Your task to perform on an android device: Open Google Maps and go to "Timeline" Image 0: 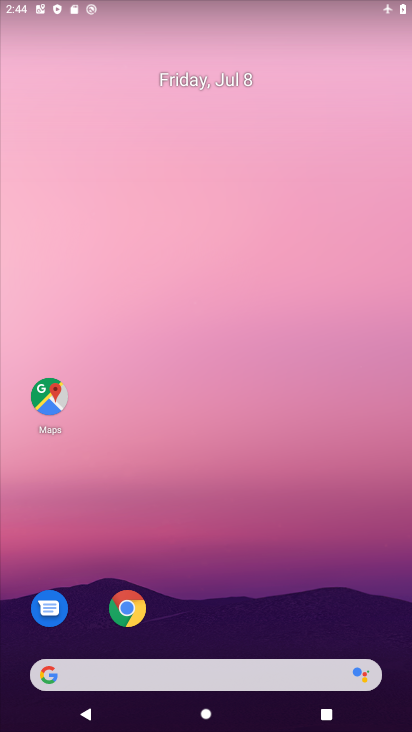
Step 0: click (232, 10)
Your task to perform on an android device: Open Google Maps and go to "Timeline" Image 1: 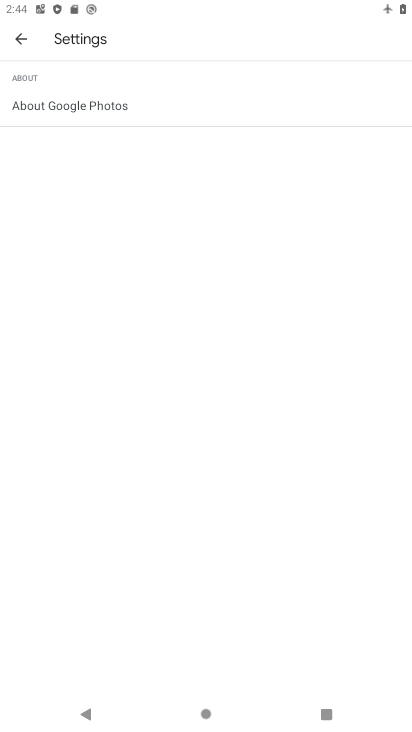
Step 1: press home button
Your task to perform on an android device: Open Google Maps and go to "Timeline" Image 2: 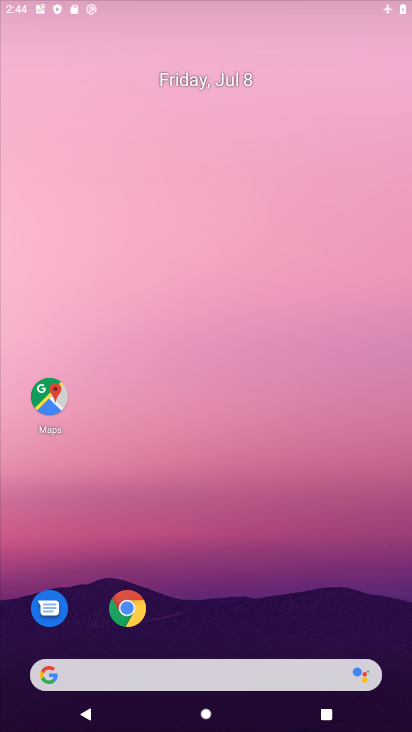
Step 2: drag from (270, 609) to (310, 5)
Your task to perform on an android device: Open Google Maps and go to "Timeline" Image 3: 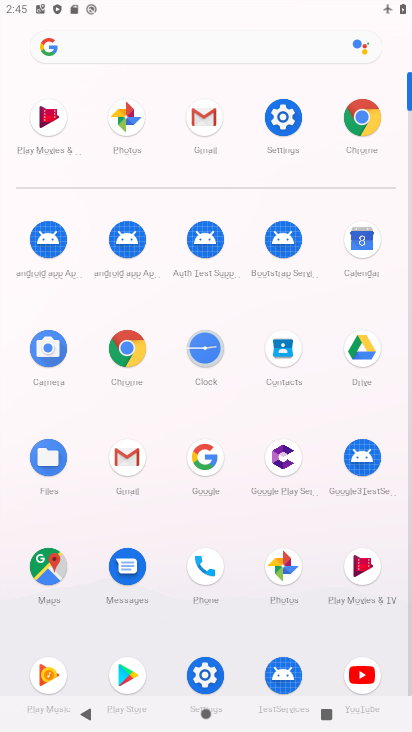
Step 3: click (52, 559)
Your task to perform on an android device: Open Google Maps and go to "Timeline" Image 4: 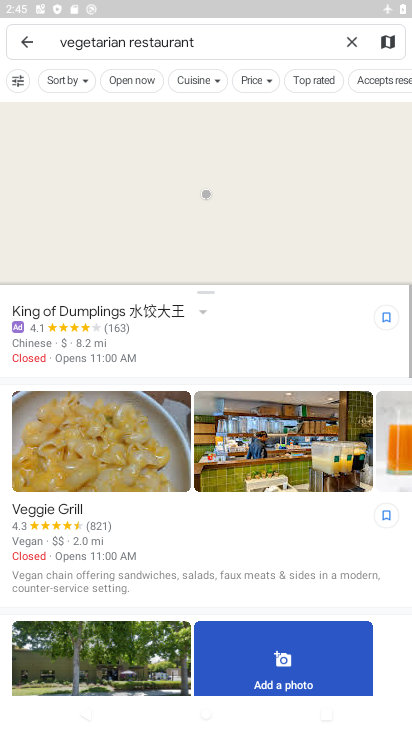
Step 4: press back button
Your task to perform on an android device: Open Google Maps and go to "Timeline" Image 5: 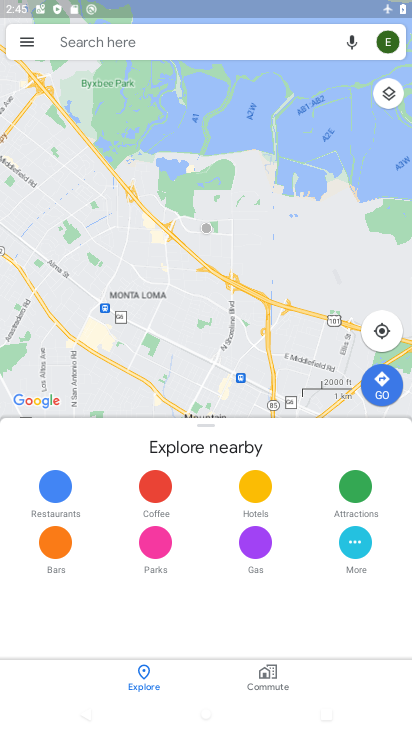
Step 5: click (21, 46)
Your task to perform on an android device: Open Google Maps and go to "Timeline" Image 6: 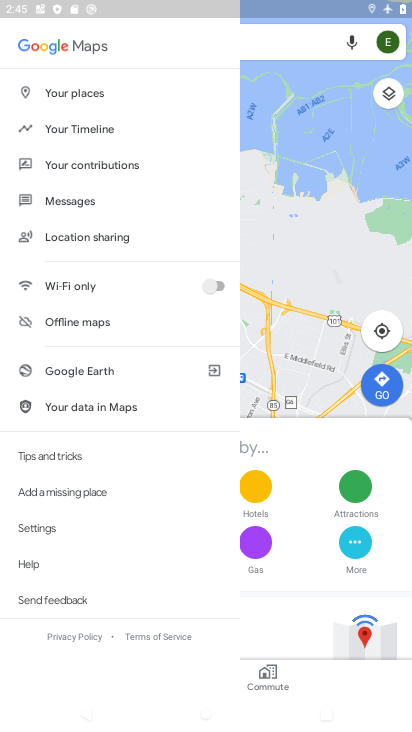
Step 6: click (30, 43)
Your task to perform on an android device: Open Google Maps and go to "Timeline" Image 7: 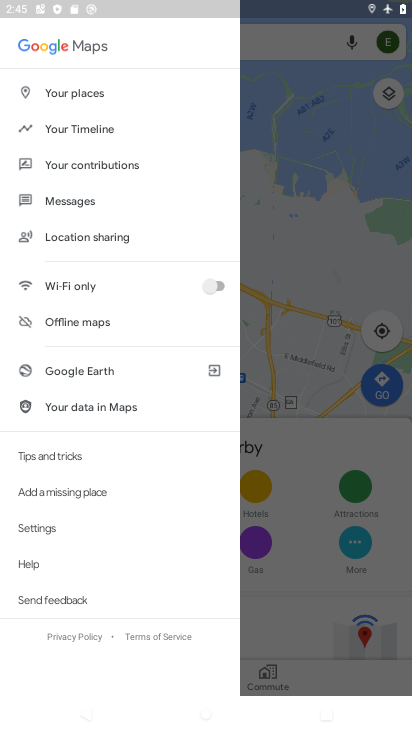
Step 7: click (101, 131)
Your task to perform on an android device: Open Google Maps and go to "Timeline" Image 8: 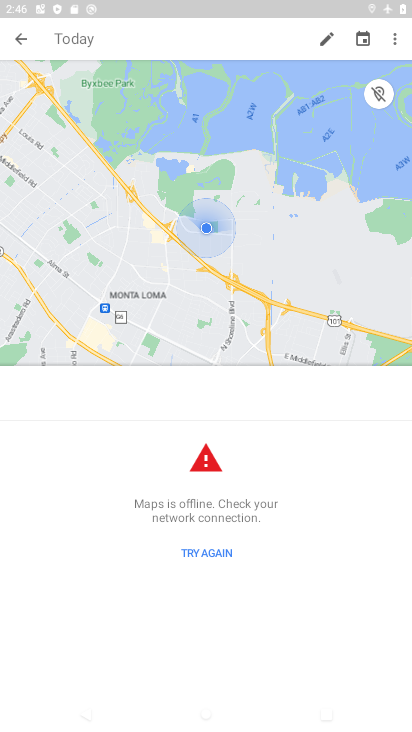
Step 8: press back button
Your task to perform on an android device: Open Google Maps and go to "Timeline" Image 9: 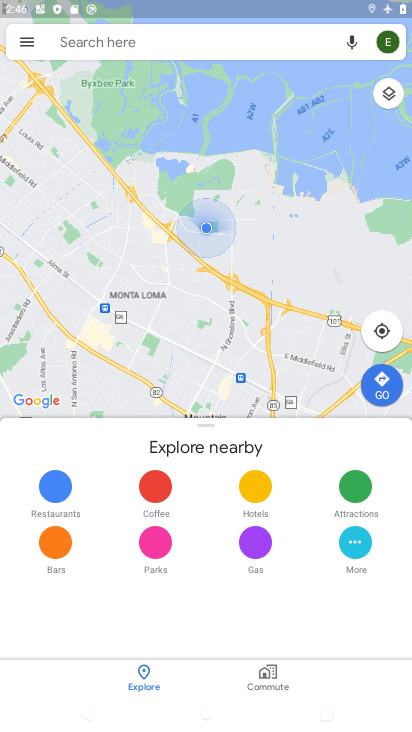
Step 9: click (18, 34)
Your task to perform on an android device: Open Google Maps and go to "Timeline" Image 10: 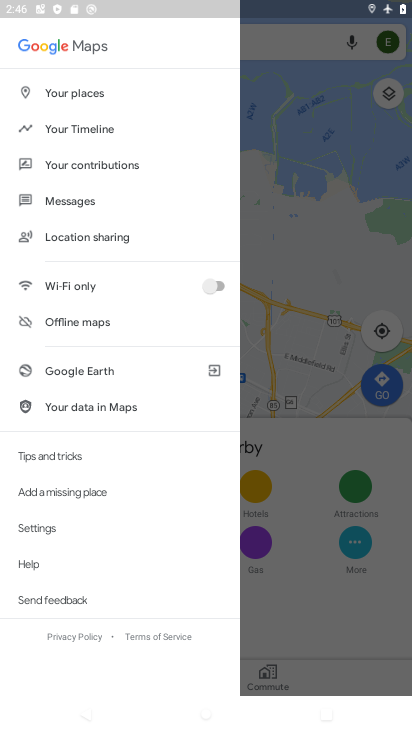
Step 10: click (98, 125)
Your task to perform on an android device: Open Google Maps and go to "Timeline" Image 11: 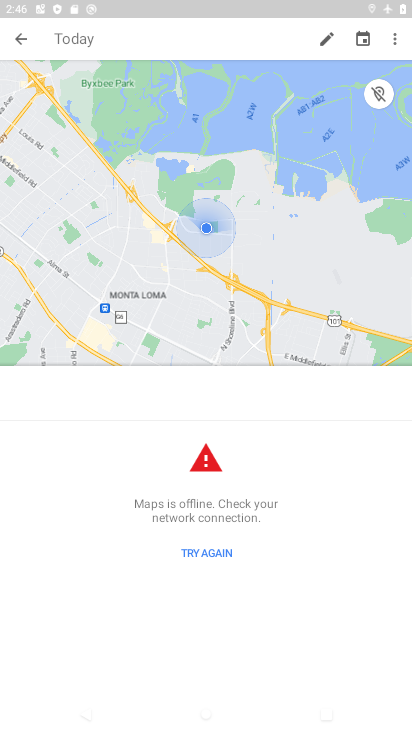
Step 11: task complete